Your task to perform on an android device: Go to accessibility settings Image 0: 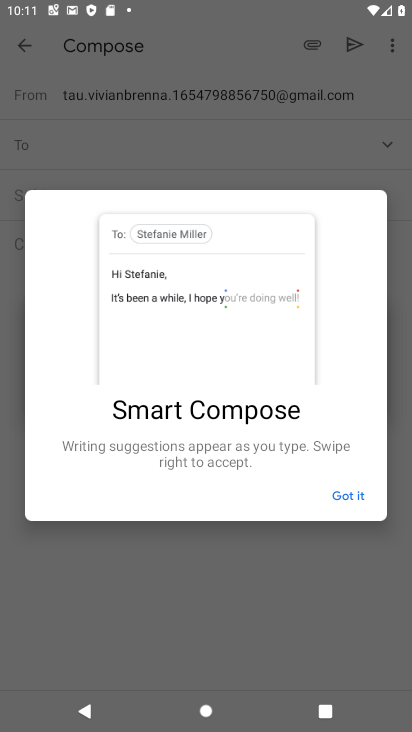
Step 0: press home button
Your task to perform on an android device: Go to accessibility settings Image 1: 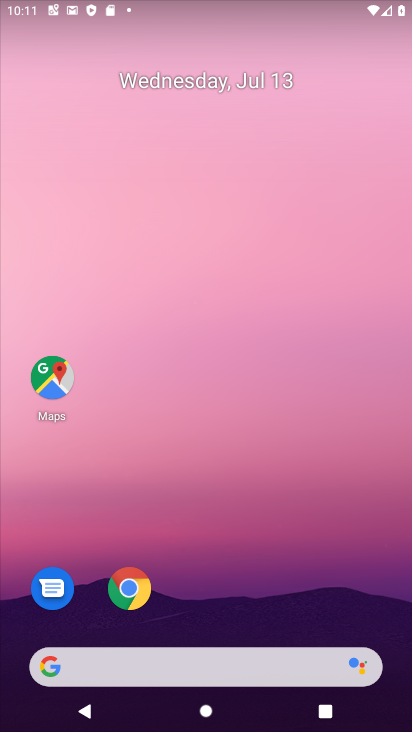
Step 1: drag from (207, 628) to (203, 394)
Your task to perform on an android device: Go to accessibility settings Image 2: 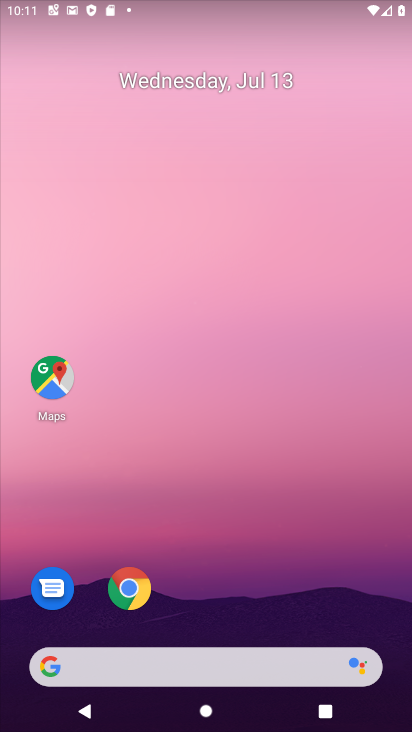
Step 2: drag from (216, 636) to (208, 231)
Your task to perform on an android device: Go to accessibility settings Image 3: 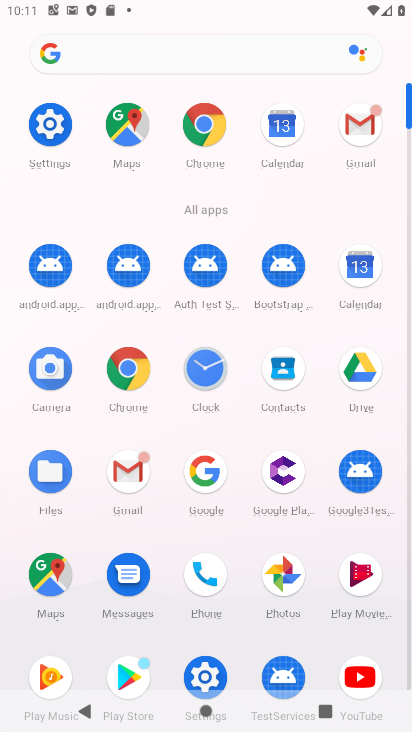
Step 3: click (50, 127)
Your task to perform on an android device: Go to accessibility settings Image 4: 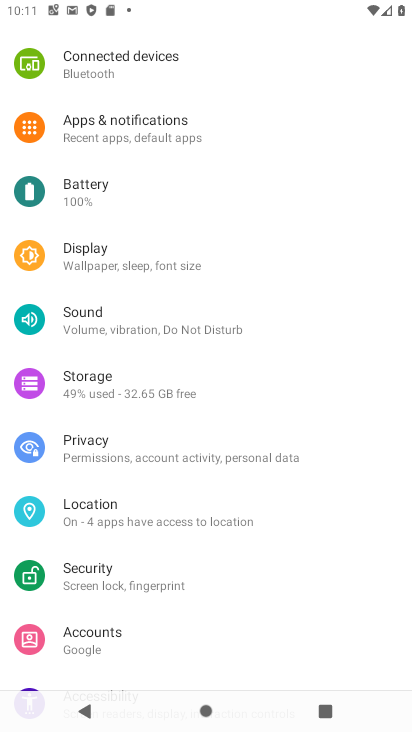
Step 4: drag from (196, 652) to (193, 299)
Your task to perform on an android device: Go to accessibility settings Image 5: 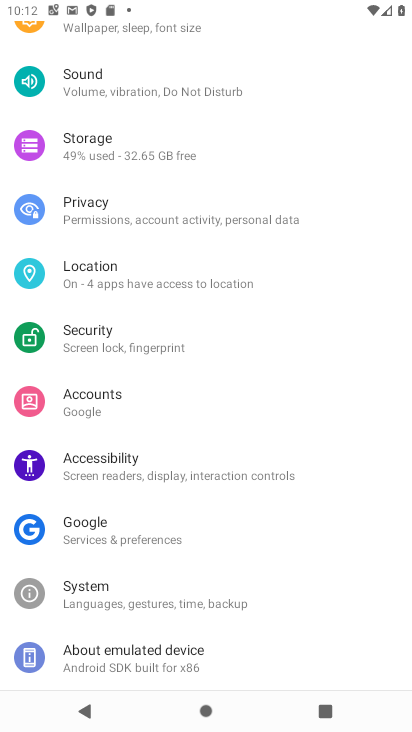
Step 5: click (138, 468)
Your task to perform on an android device: Go to accessibility settings Image 6: 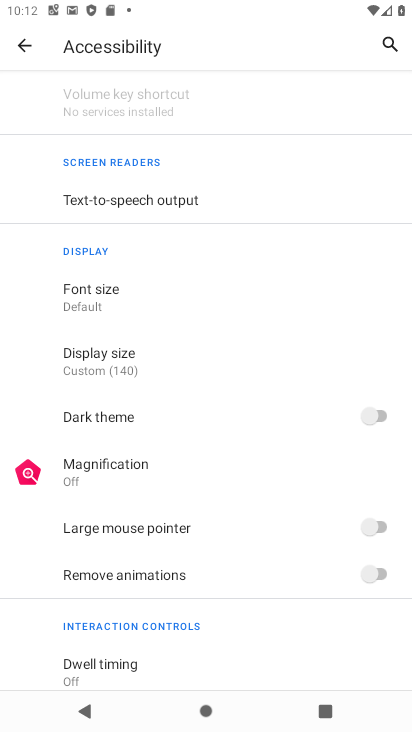
Step 6: task complete